Your task to perform on an android device: open wifi settings Image 0: 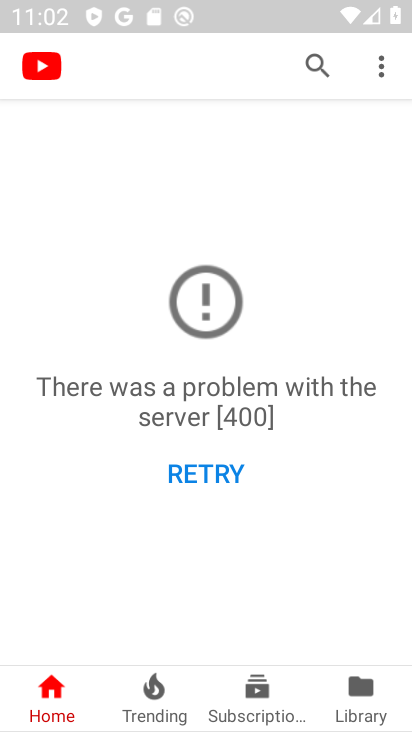
Step 0: press home button
Your task to perform on an android device: open wifi settings Image 1: 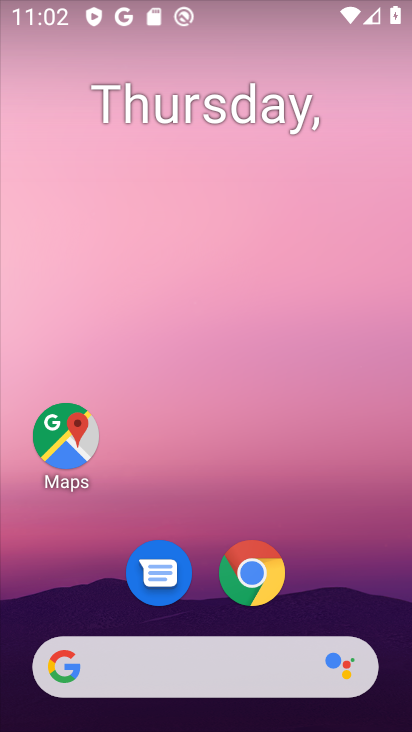
Step 1: drag from (182, 615) to (270, 37)
Your task to perform on an android device: open wifi settings Image 2: 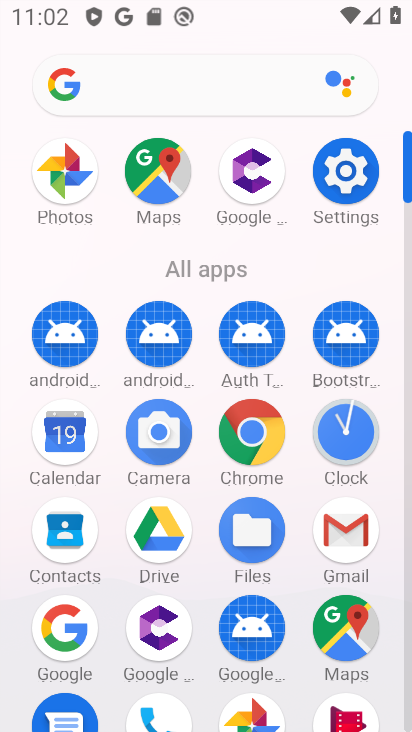
Step 2: click (349, 179)
Your task to perform on an android device: open wifi settings Image 3: 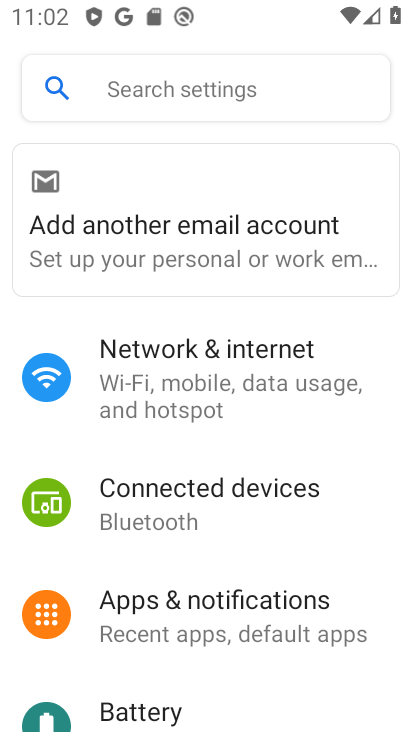
Step 3: click (181, 398)
Your task to perform on an android device: open wifi settings Image 4: 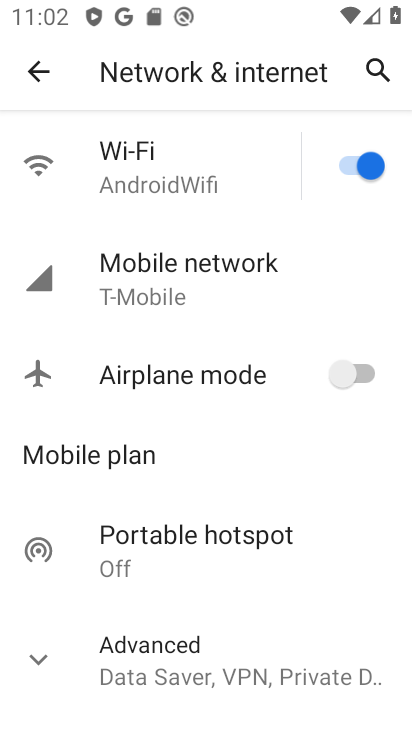
Step 4: click (174, 164)
Your task to perform on an android device: open wifi settings Image 5: 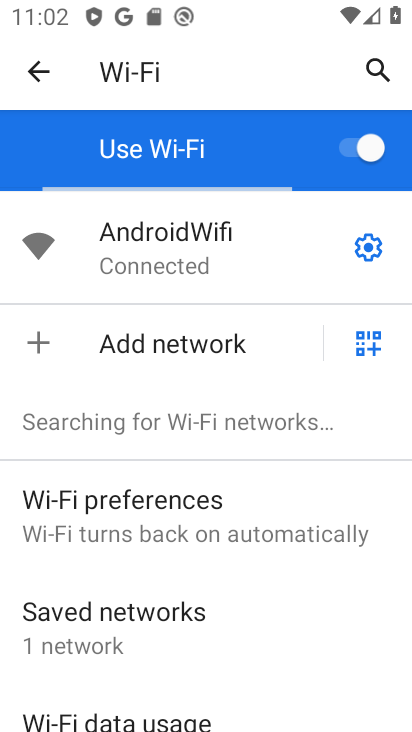
Step 5: click (373, 246)
Your task to perform on an android device: open wifi settings Image 6: 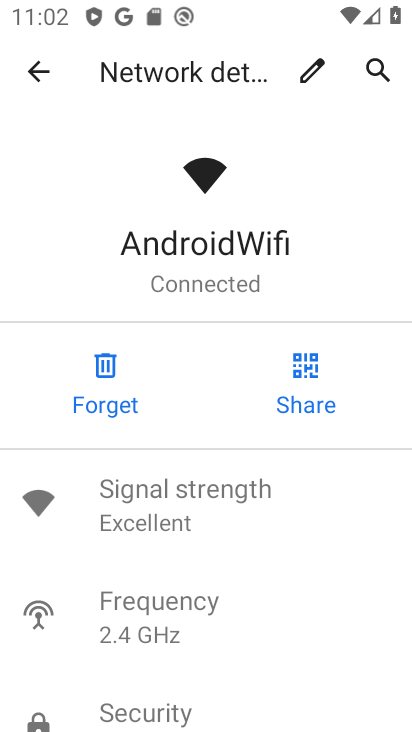
Step 6: drag from (211, 704) to (226, 238)
Your task to perform on an android device: open wifi settings Image 7: 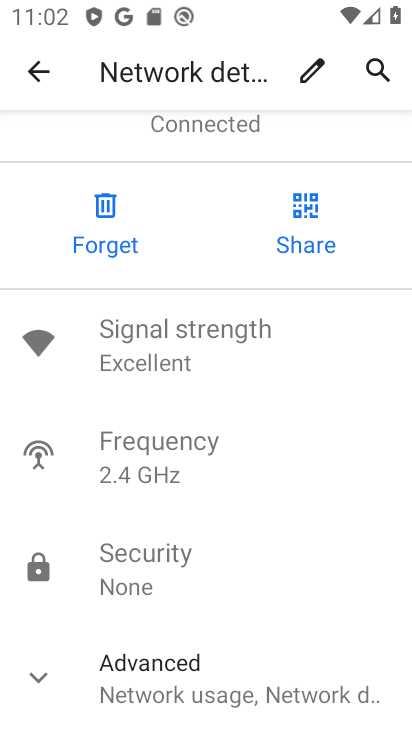
Step 7: drag from (183, 625) to (187, 193)
Your task to perform on an android device: open wifi settings Image 8: 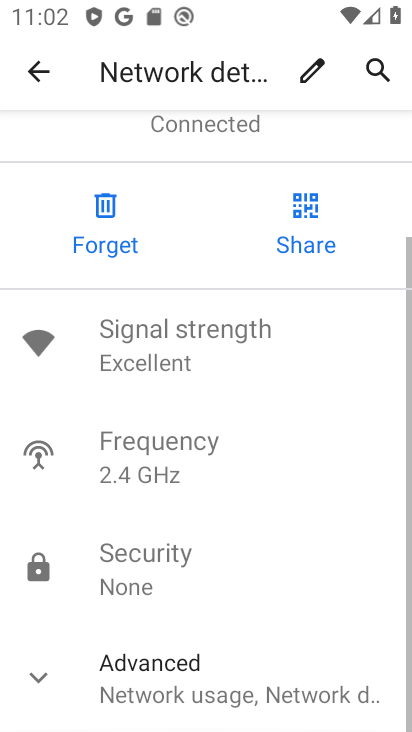
Step 8: click (152, 681)
Your task to perform on an android device: open wifi settings Image 9: 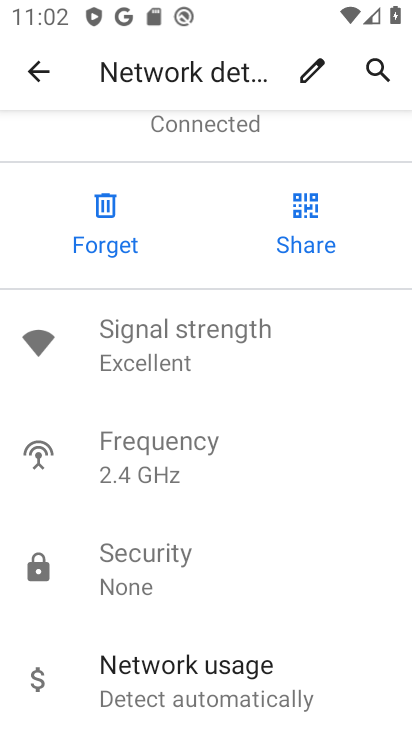
Step 9: task complete